Your task to perform on an android device: turn off airplane mode Image 0: 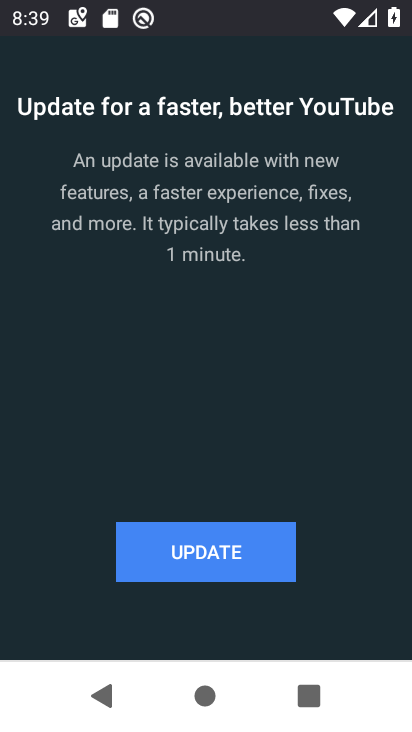
Step 0: press back button
Your task to perform on an android device: turn off airplane mode Image 1: 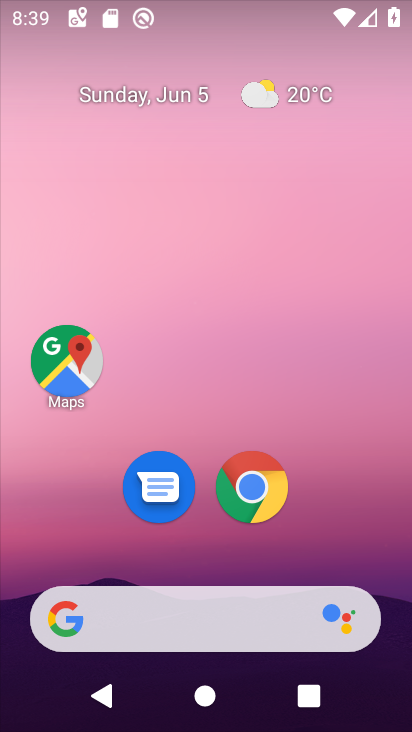
Step 1: drag from (169, 555) to (178, 166)
Your task to perform on an android device: turn off airplane mode Image 2: 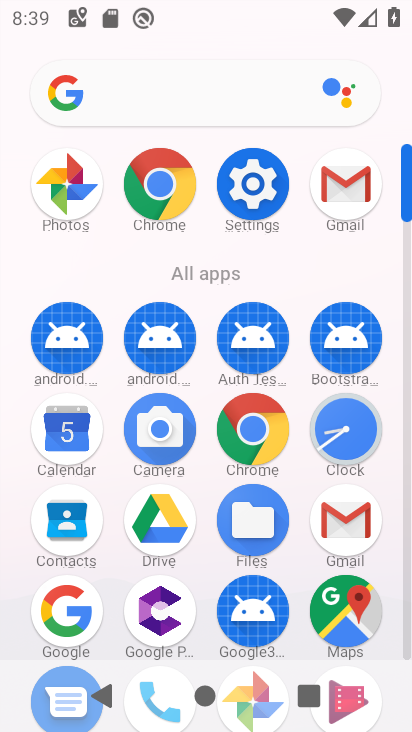
Step 2: click (258, 183)
Your task to perform on an android device: turn off airplane mode Image 3: 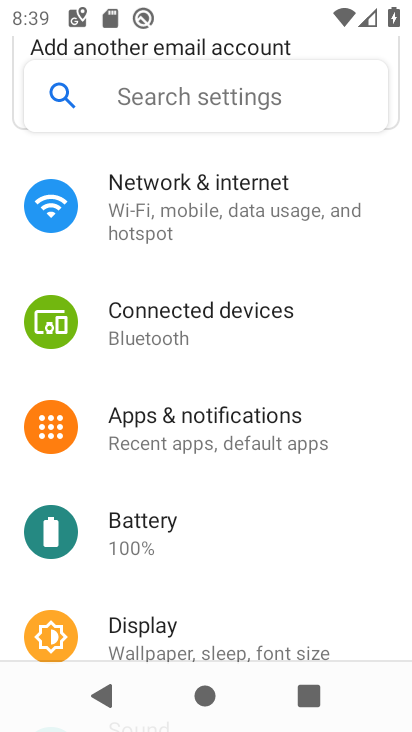
Step 3: click (164, 205)
Your task to perform on an android device: turn off airplane mode Image 4: 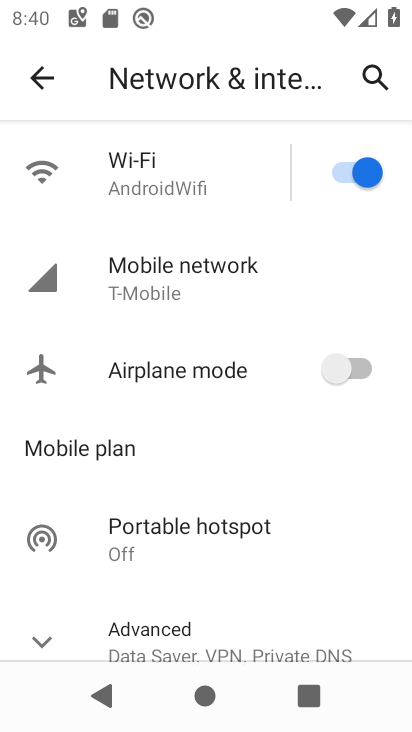
Step 4: task complete